Your task to perform on an android device: Go to location settings Image 0: 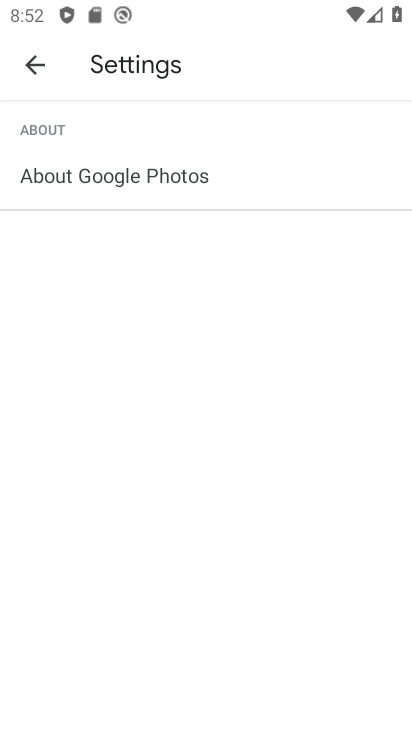
Step 0: press home button
Your task to perform on an android device: Go to location settings Image 1: 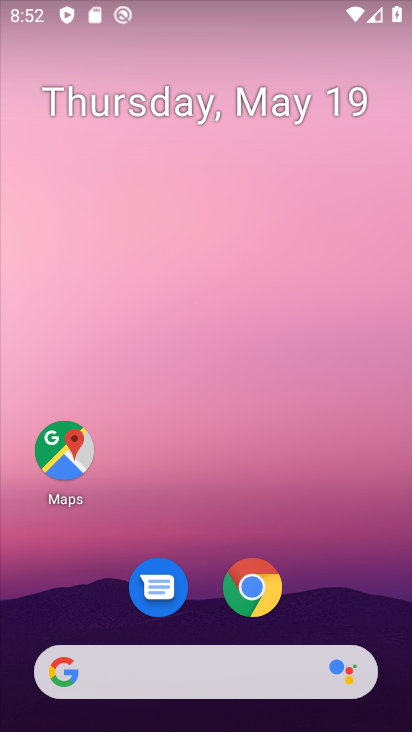
Step 1: drag from (323, 614) to (302, 196)
Your task to perform on an android device: Go to location settings Image 2: 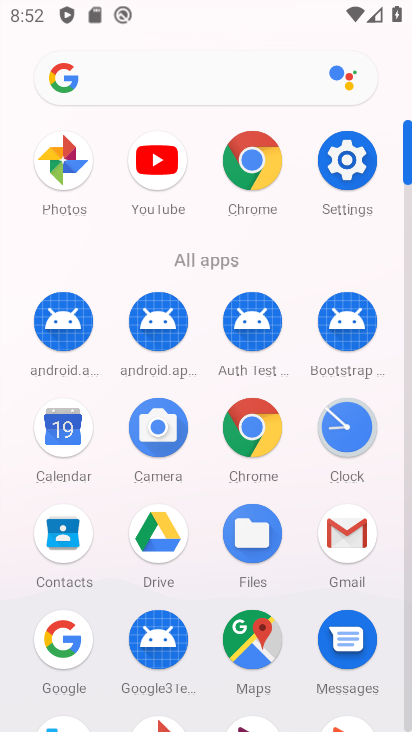
Step 2: click (362, 168)
Your task to perform on an android device: Go to location settings Image 3: 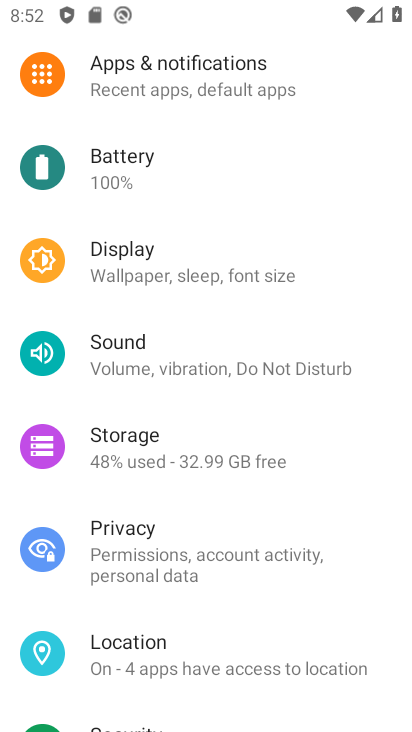
Step 3: drag from (274, 513) to (314, 249)
Your task to perform on an android device: Go to location settings Image 4: 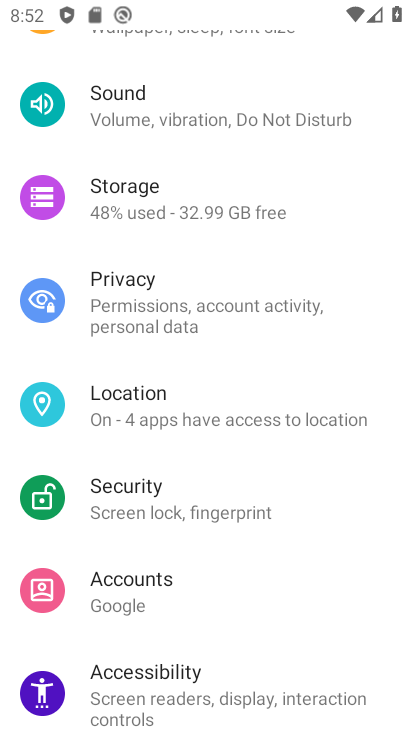
Step 4: click (203, 411)
Your task to perform on an android device: Go to location settings Image 5: 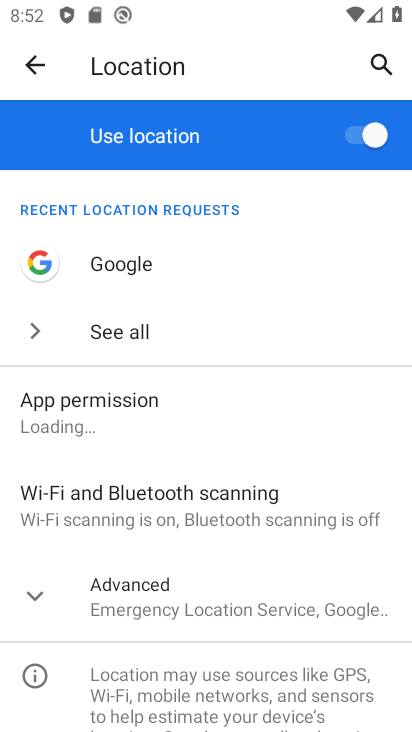
Step 5: task complete